Your task to perform on an android device: What's the weather today? Image 0: 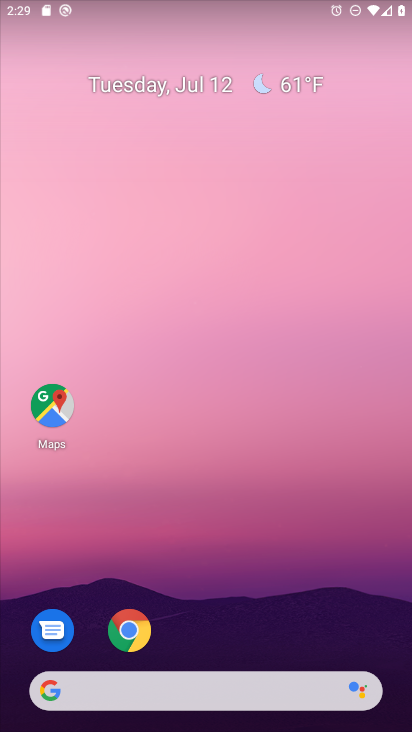
Step 0: drag from (247, 625) to (285, 191)
Your task to perform on an android device: What's the weather today? Image 1: 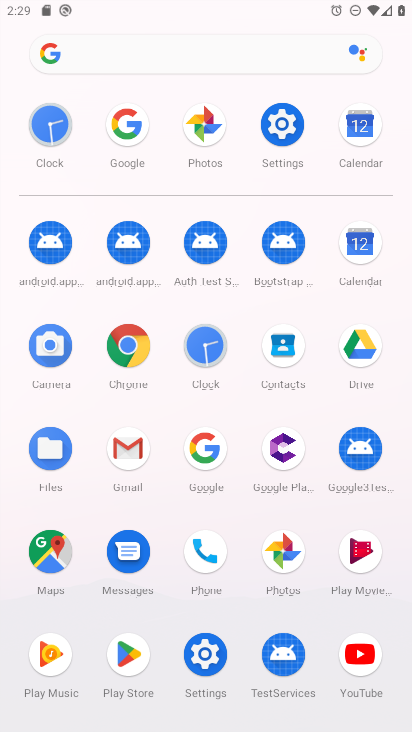
Step 1: click (216, 450)
Your task to perform on an android device: What's the weather today? Image 2: 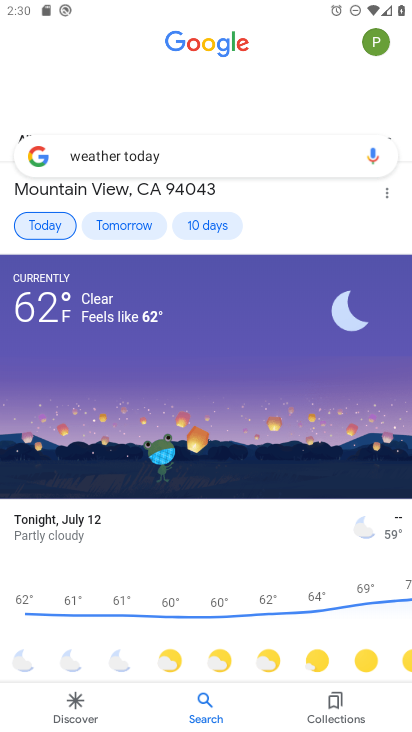
Step 2: click (194, 147)
Your task to perform on an android device: What's the weather today? Image 3: 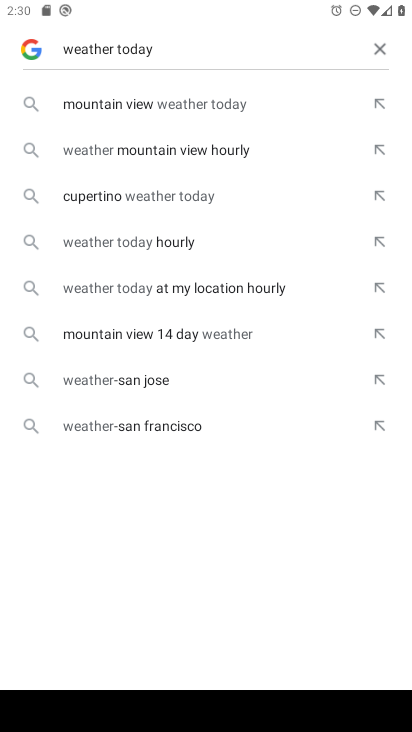
Step 3: click (195, 46)
Your task to perform on an android device: What's the weather today? Image 4: 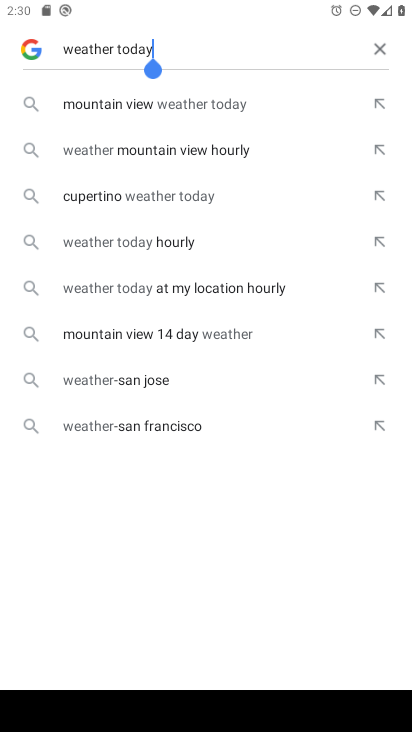
Step 4: click (375, 46)
Your task to perform on an android device: What's the weather today? Image 5: 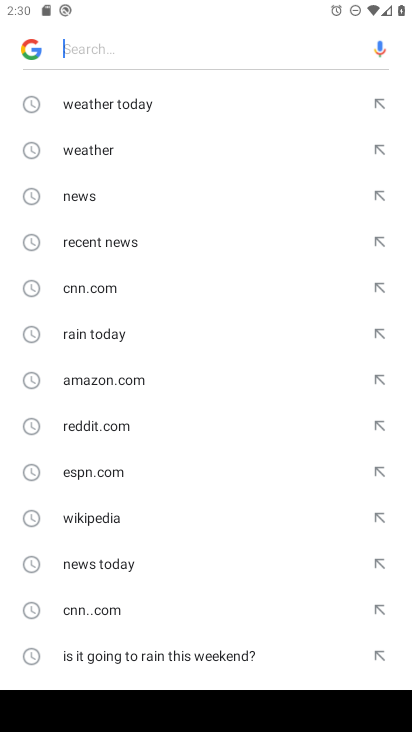
Step 5: click (132, 107)
Your task to perform on an android device: What's the weather today? Image 6: 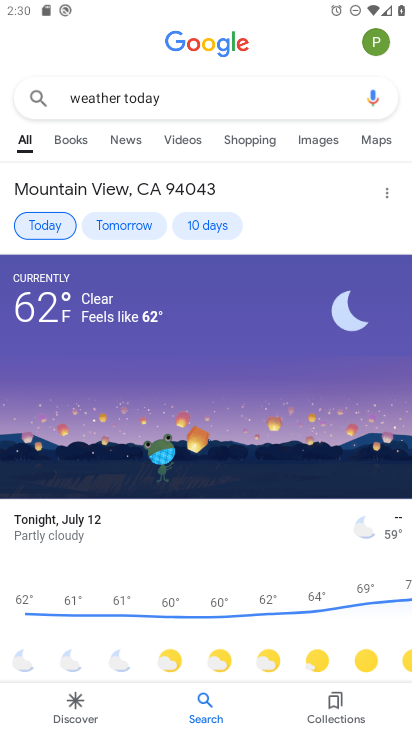
Step 6: task complete